Your task to perform on an android device: What's the weather today? Image 0: 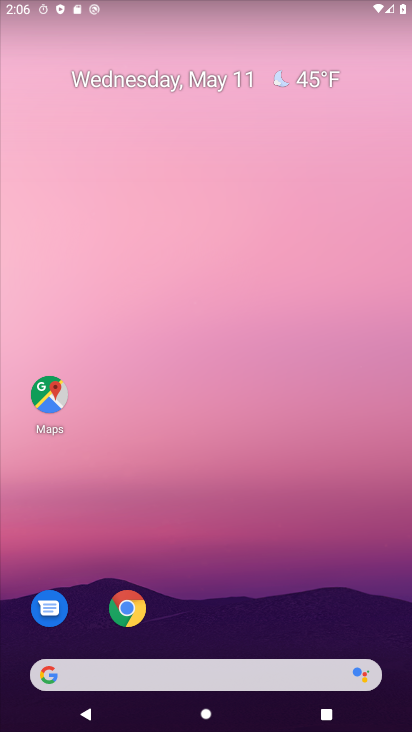
Step 0: drag from (223, 625) to (235, 151)
Your task to perform on an android device: What's the weather today? Image 1: 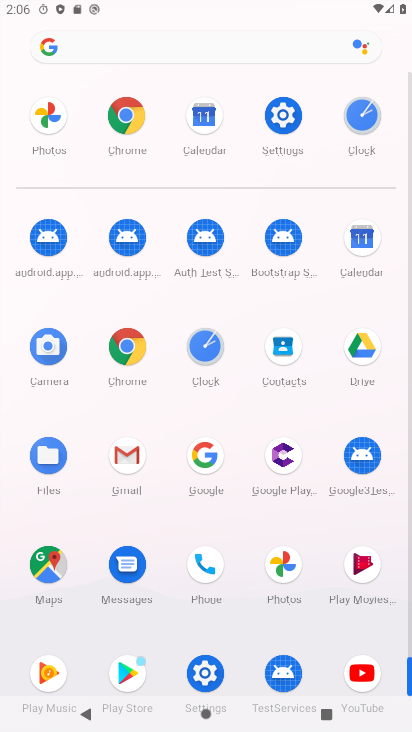
Step 1: click (206, 459)
Your task to perform on an android device: What's the weather today? Image 2: 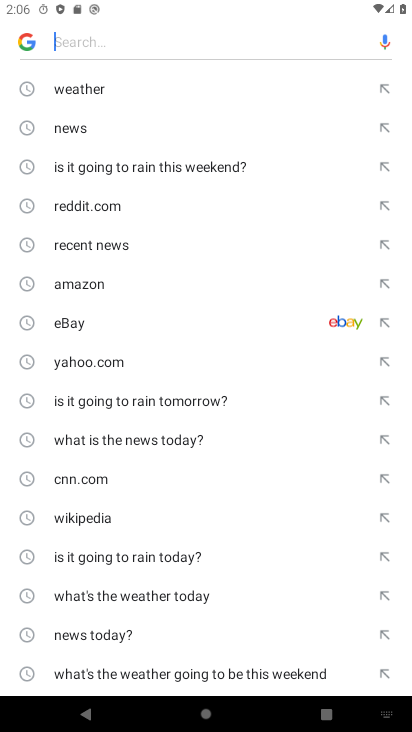
Step 2: click (105, 91)
Your task to perform on an android device: What's the weather today? Image 3: 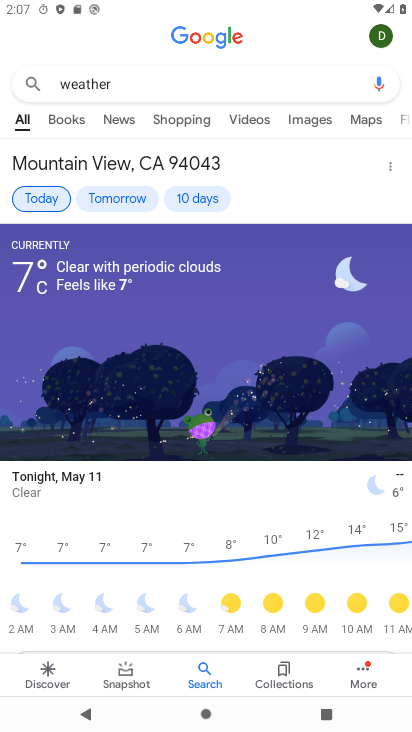
Step 3: task complete